Your task to perform on an android device: Check out the new ikea catalog. Image 0: 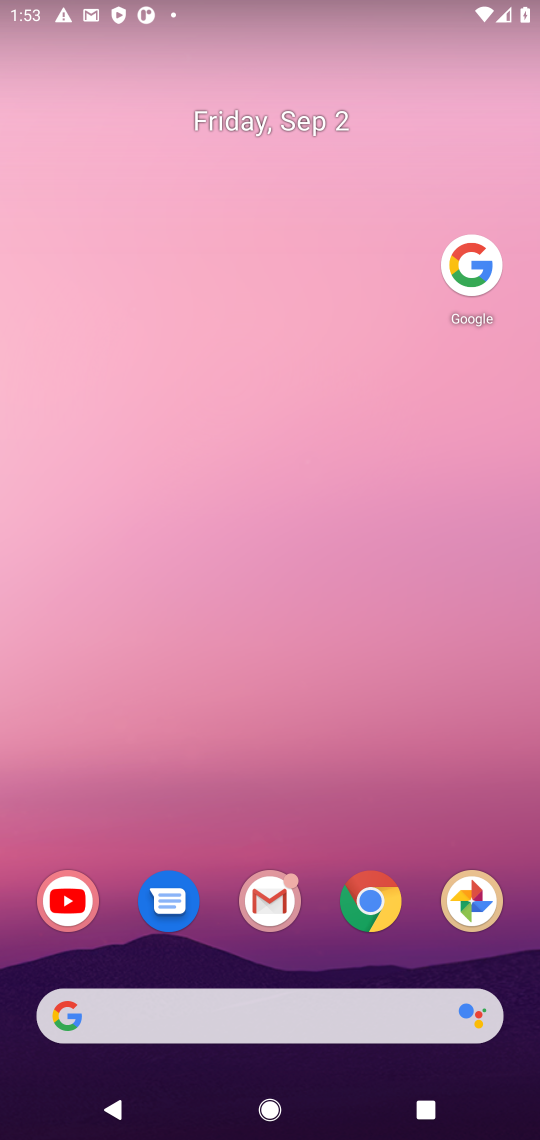
Step 0: drag from (338, 853) to (363, 119)
Your task to perform on an android device: Check out the new ikea catalog. Image 1: 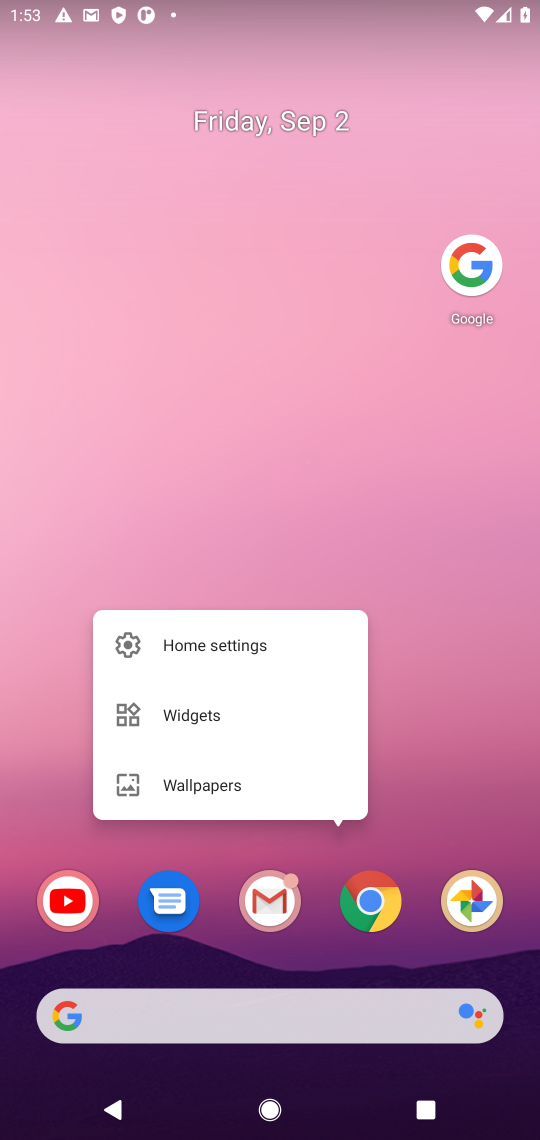
Step 1: click (462, 242)
Your task to perform on an android device: Check out the new ikea catalog. Image 2: 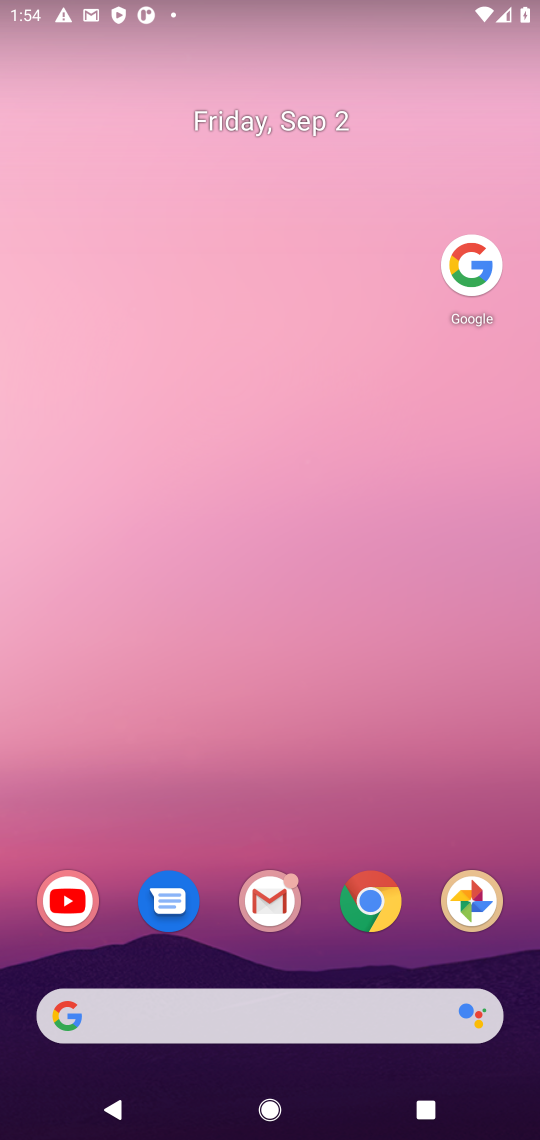
Step 2: click (486, 264)
Your task to perform on an android device: Check out the new ikea catalog. Image 3: 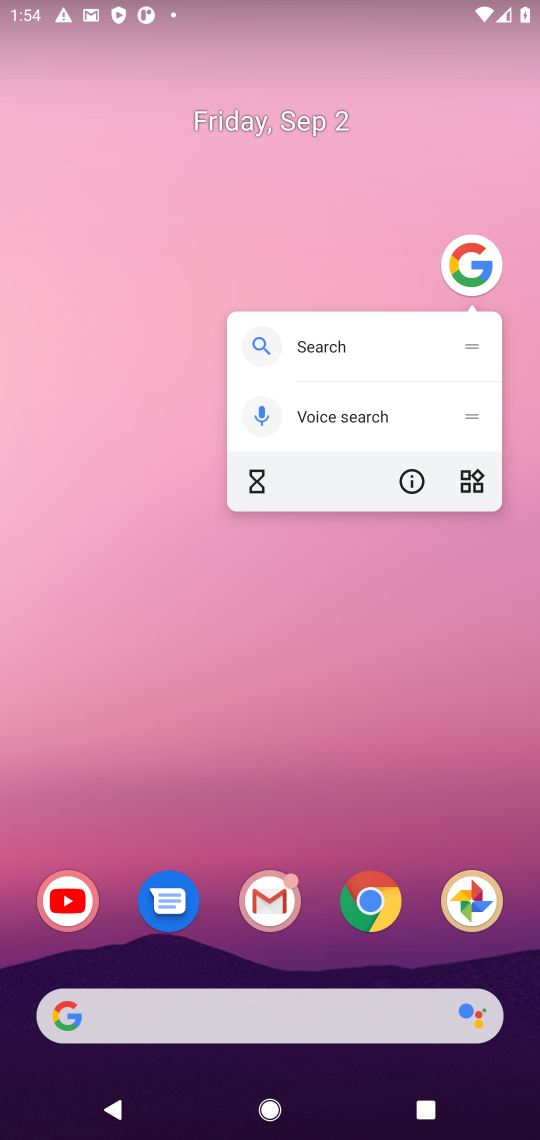
Step 3: click (465, 250)
Your task to perform on an android device: Check out the new ikea catalog. Image 4: 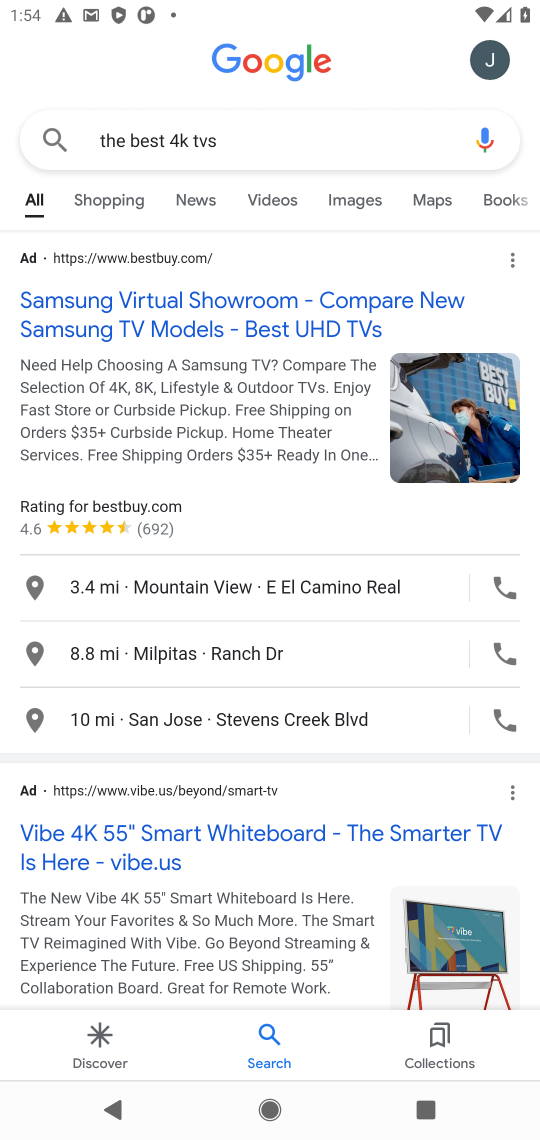
Step 4: click (312, 133)
Your task to perform on an android device: Check out the new ikea catalog. Image 5: 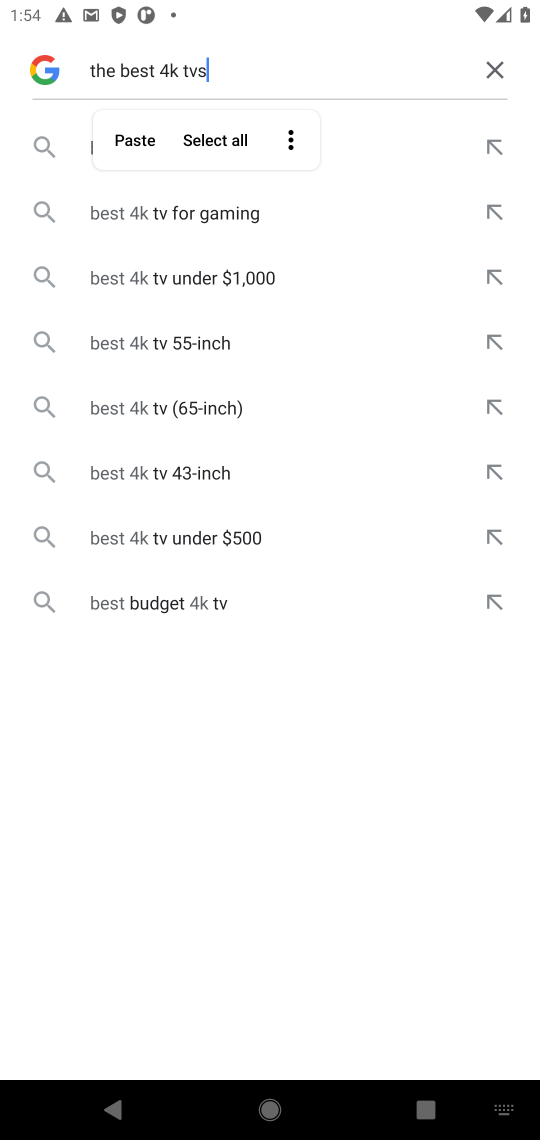
Step 5: click (503, 61)
Your task to perform on an android device: Check out the new ikea catalog. Image 6: 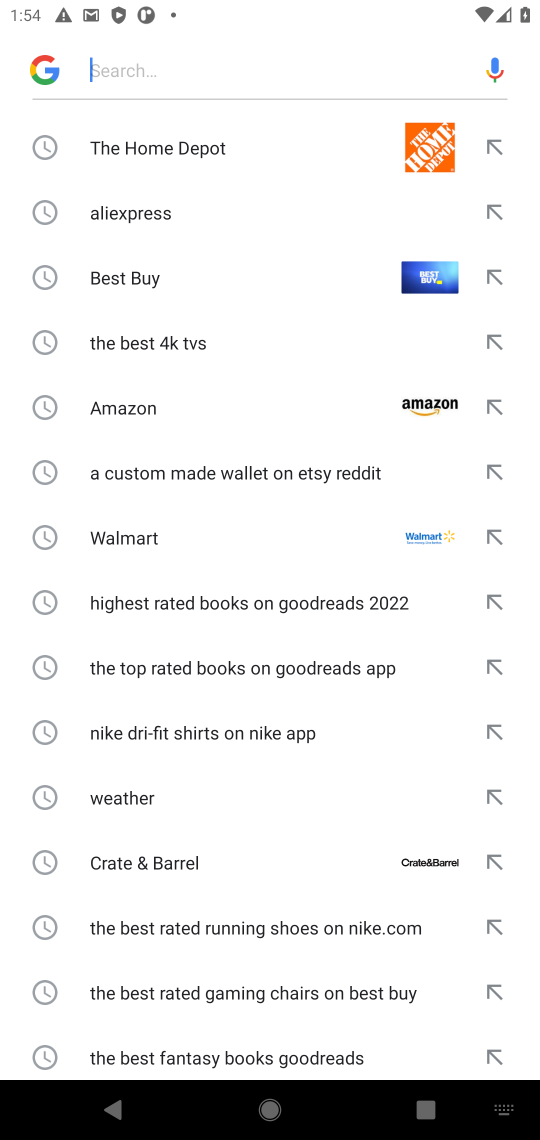
Step 6: click (219, 44)
Your task to perform on an android device: Check out the new ikea catalog. Image 7: 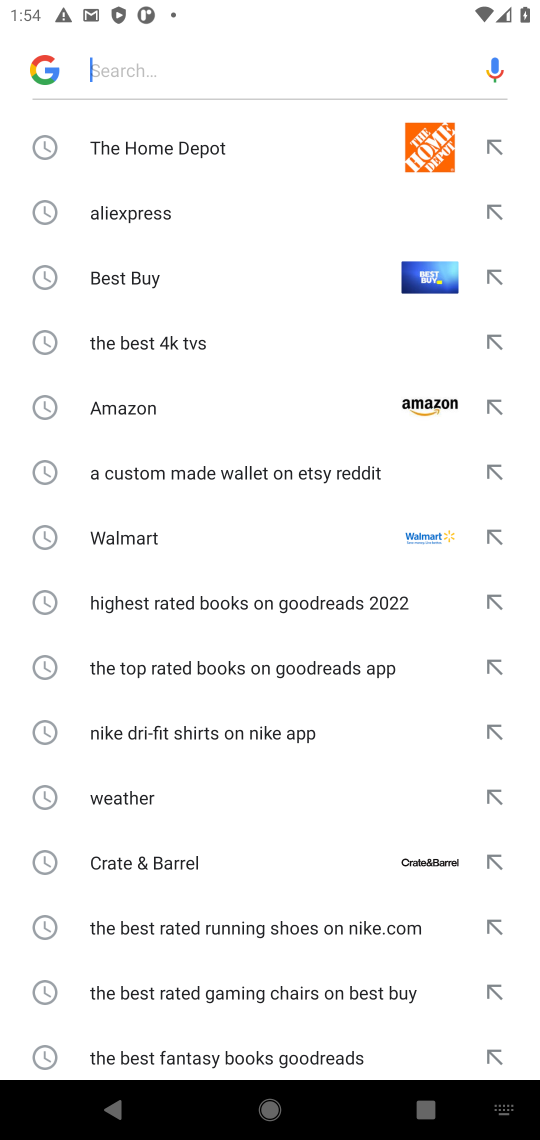
Step 7: type " the new ikea catalog "
Your task to perform on an android device: Check out the new ikea catalog. Image 8: 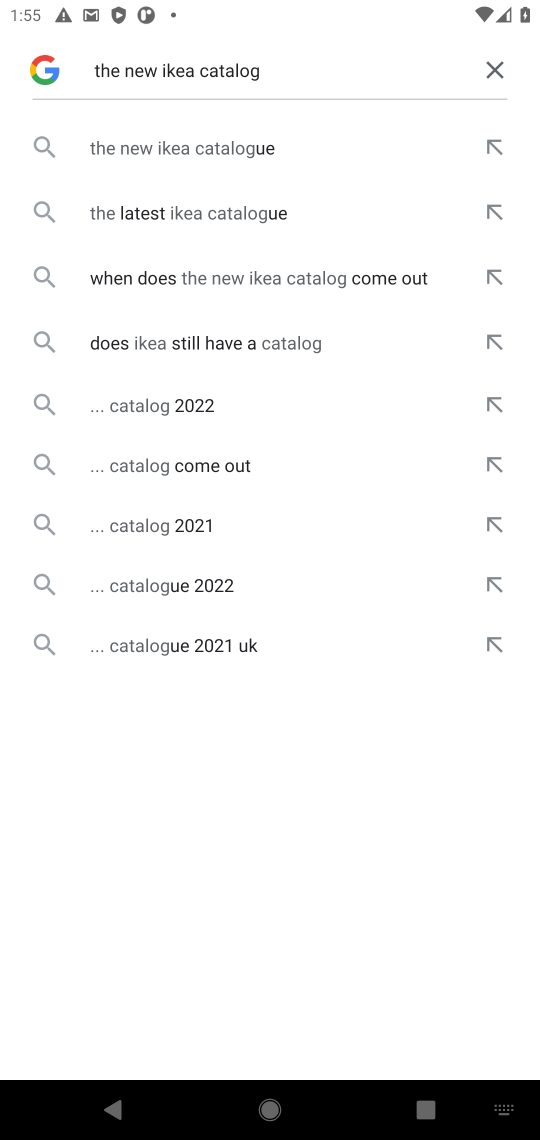
Step 8: click (193, 152)
Your task to perform on an android device: Check out the new ikea catalog. Image 9: 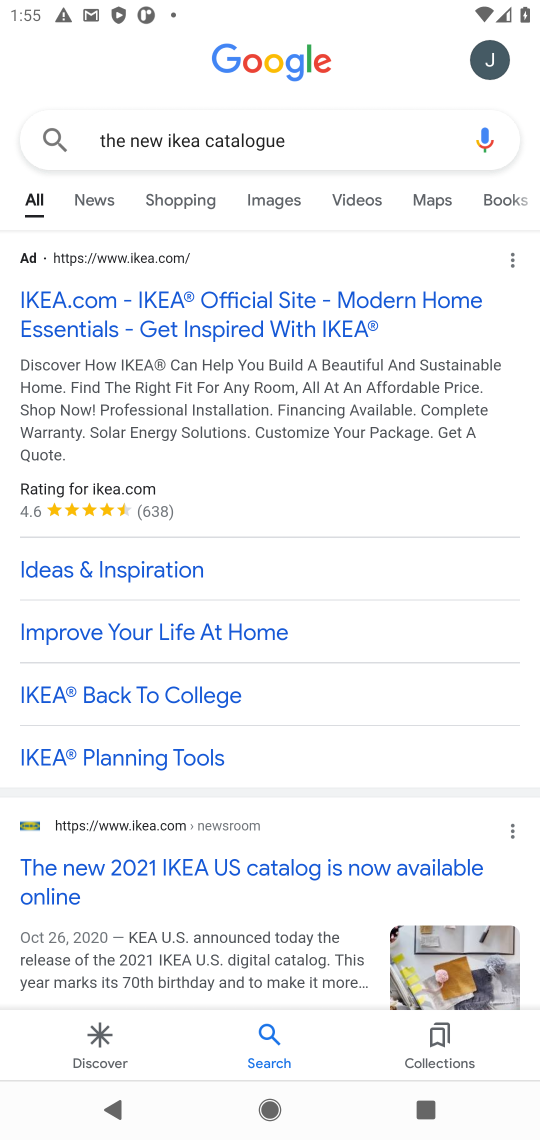
Step 9: click (169, 299)
Your task to perform on an android device: Check out the new ikea catalog. Image 10: 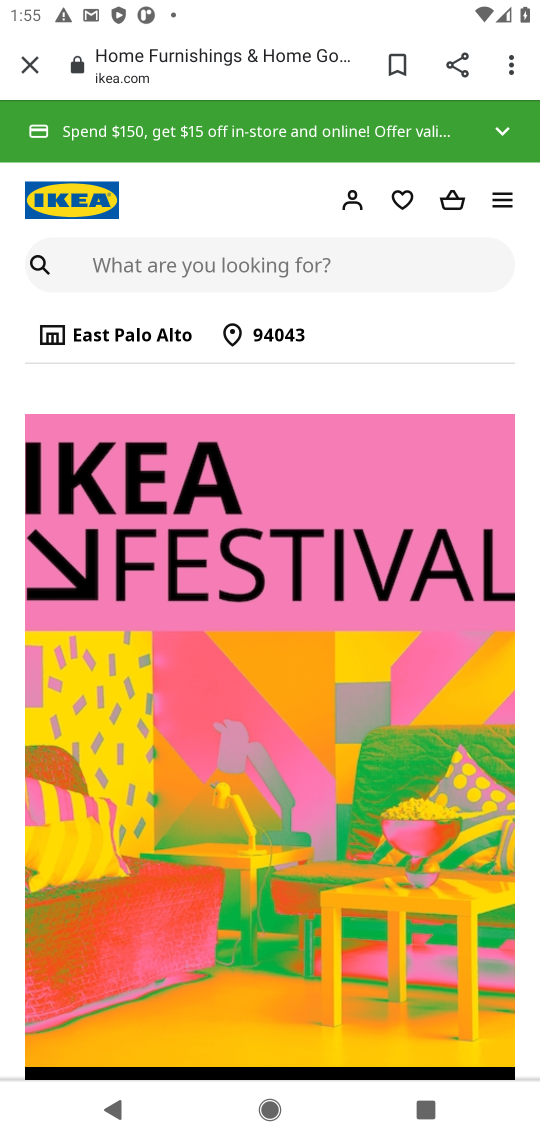
Step 10: task complete